Your task to perform on an android device: What's a good restaurant in Las Vegas? Image 0: 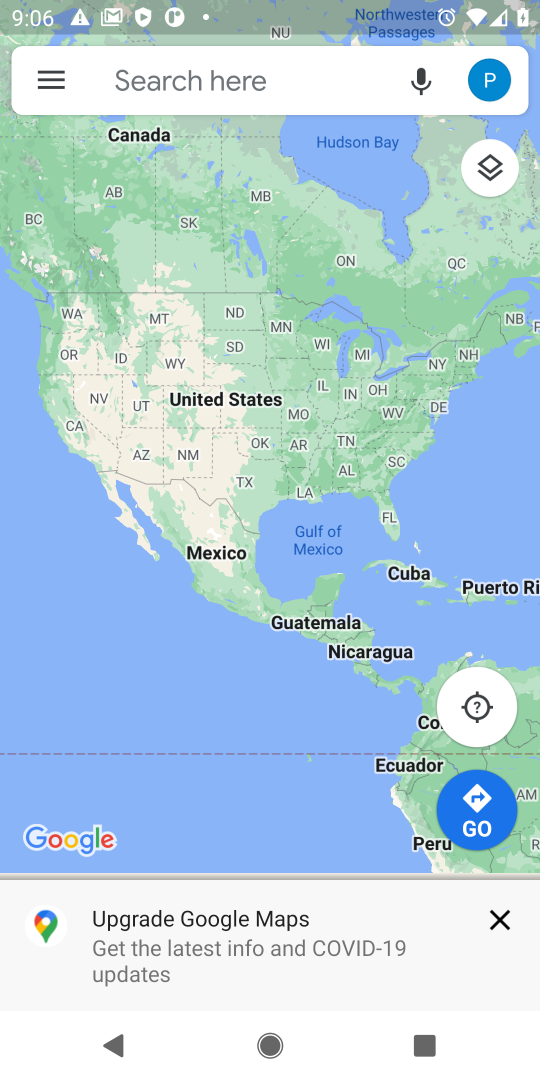
Step 0: press home button
Your task to perform on an android device: What's a good restaurant in Las Vegas? Image 1: 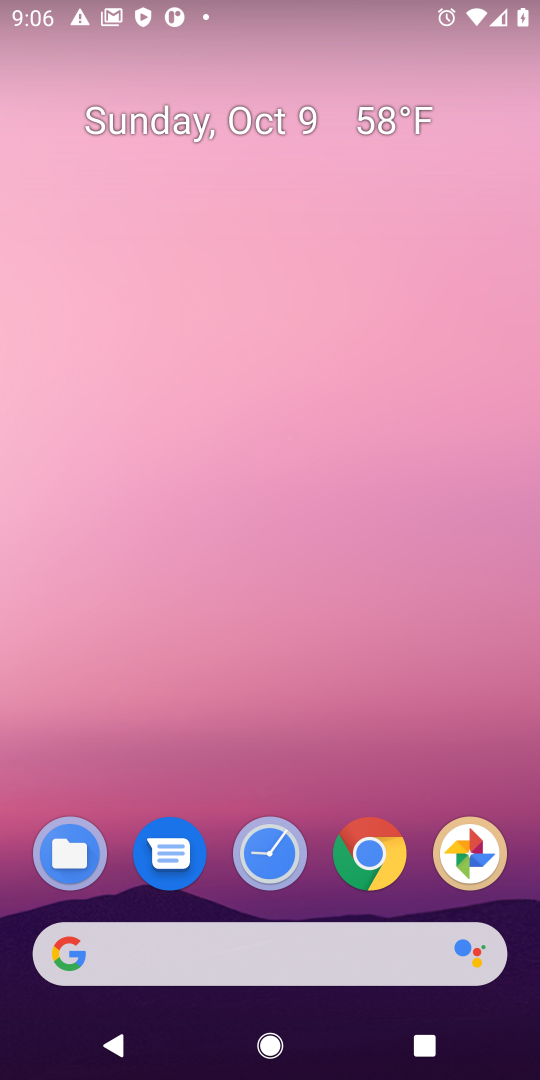
Step 1: click (381, 845)
Your task to perform on an android device: What's a good restaurant in Las Vegas? Image 2: 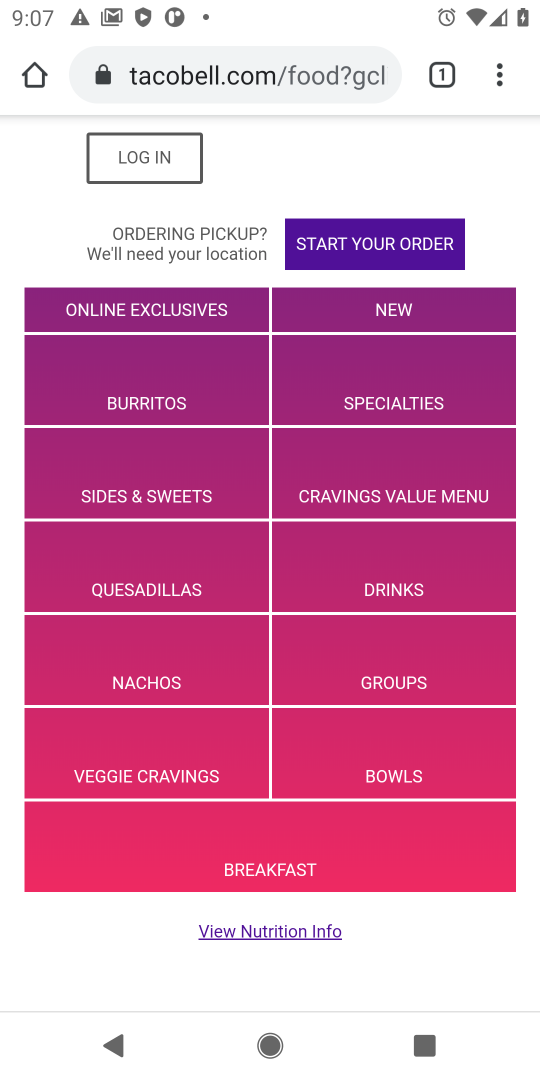
Step 2: click (328, 83)
Your task to perform on an android device: What's a good restaurant in Las Vegas? Image 3: 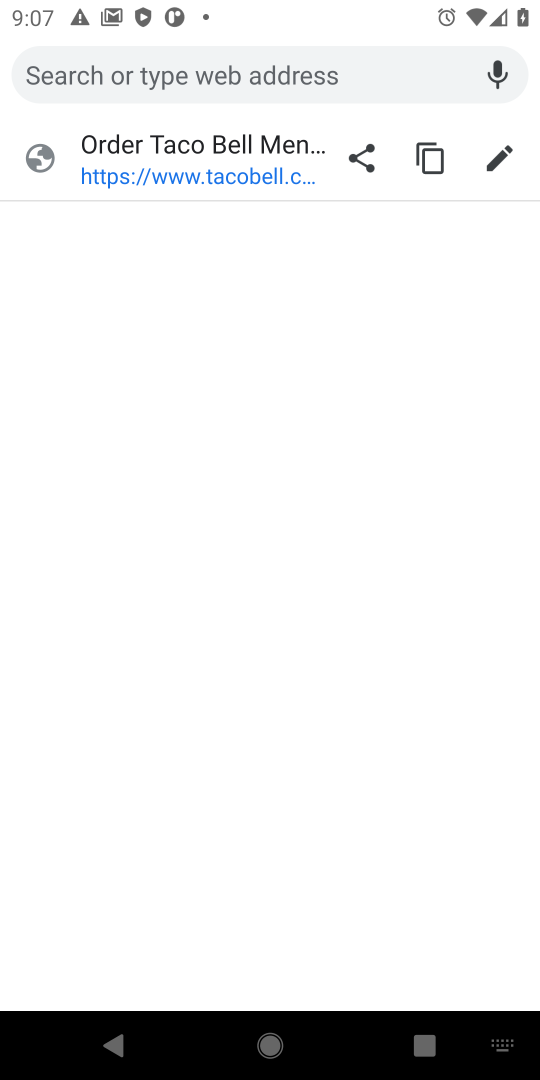
Step 3: type "good restaurant in las vegas"
Your task to perform on an android device: What's a good restaurant in Las Vegas? Image 4: 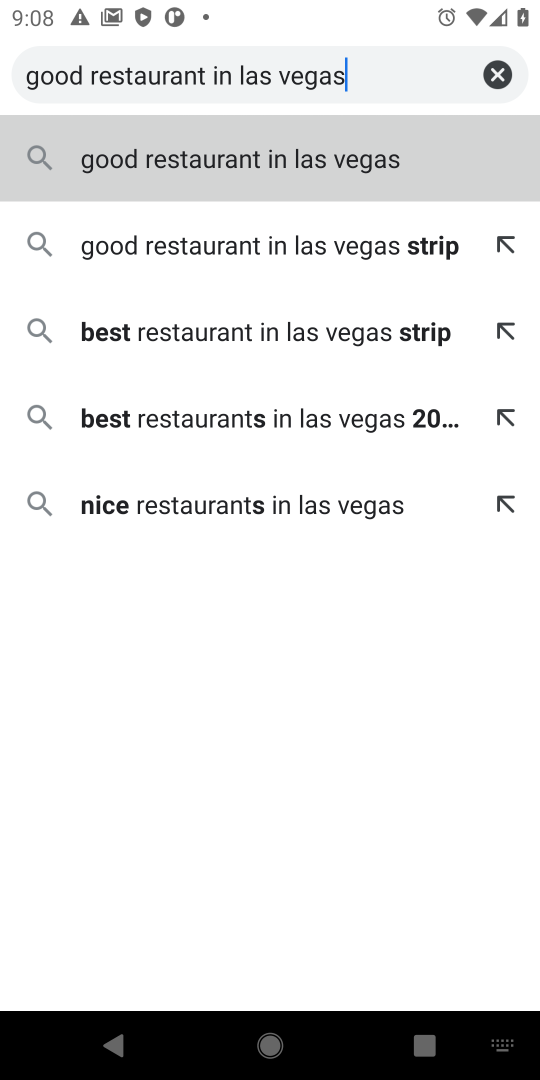
Step 4: click (372, 153)
Your task to perform on an android device: What's a good restaurant in Las Vegas? Image 5: 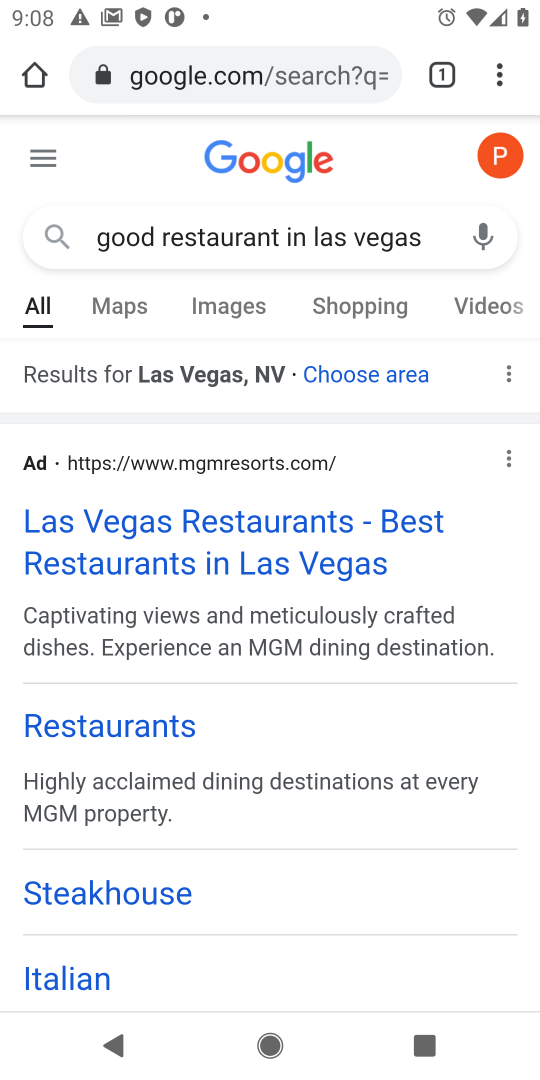
Step 5: task complete